Your task to perform on an android device: open the mobile data screen to see how much data has been used Image 0: 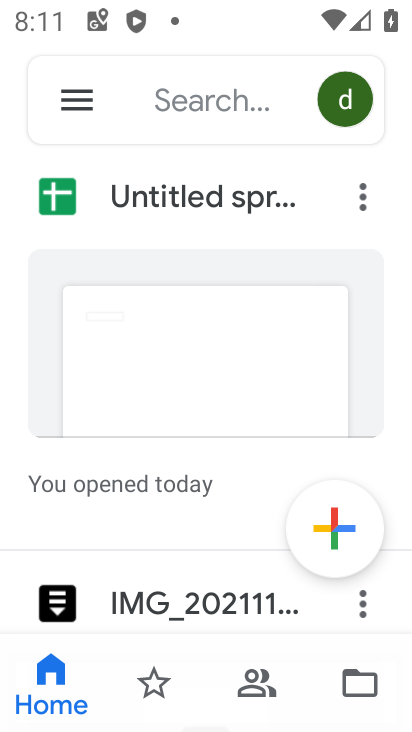
Step 0: press home button
Your task to perform on an android device: open the mobile data screen to see how much data has been used Image 1: 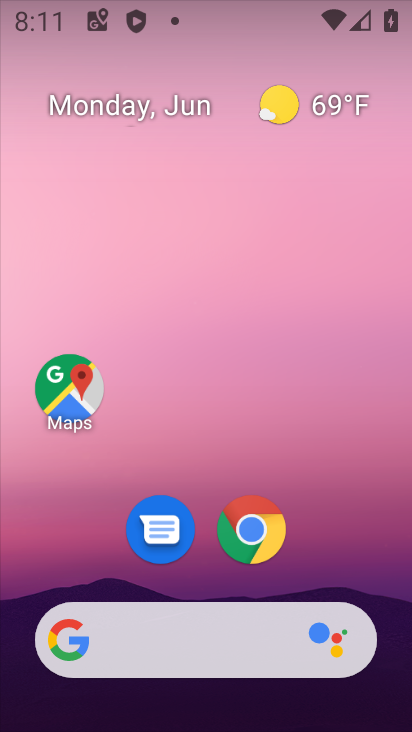
Step 1: drag from (329, 396) to (335, 60)
Your task to perform on an android device: open the mobile data screen to see how much data has been used Image 2: 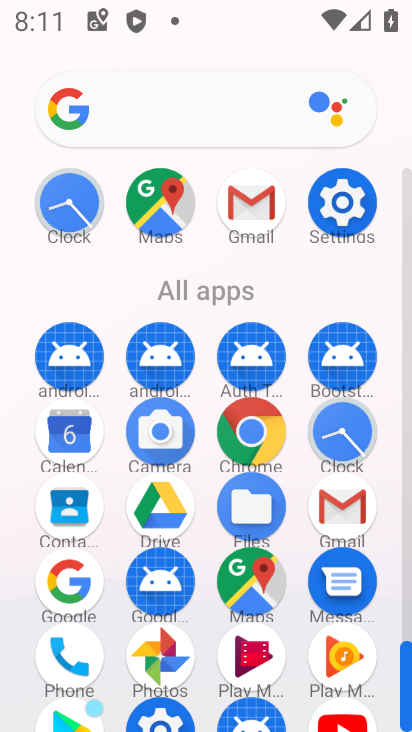
Step 2: click (336, 191)
Your task to perform on an android device: open the mobile data screen to see how much data has been used Image 3: 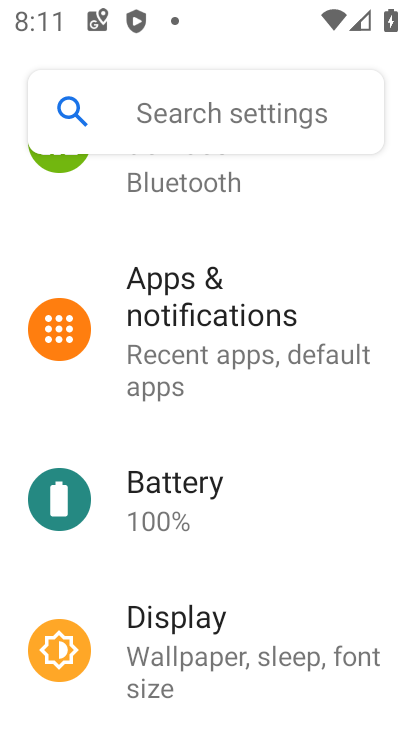
Step 3: drag from (330, 211) to (346, 368)
Your task to perform on an android device: open the mobile data screen to see how much data has been used Image 4: 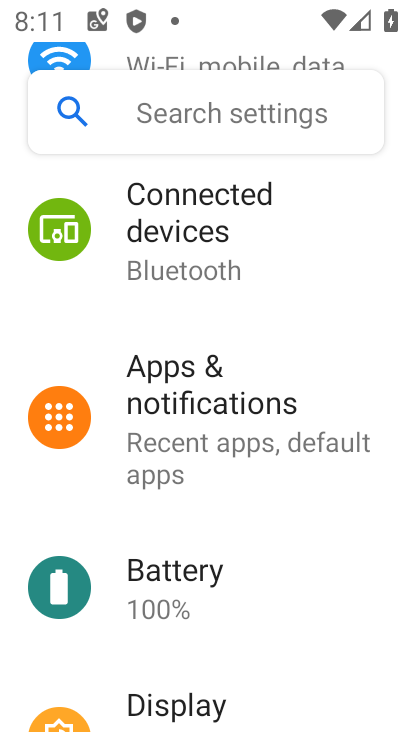
Step 4: drag from (344, 330) to (367, 598)
Your task to perform on an android device: open the mobile data screen to see how much data has been used Image 5: 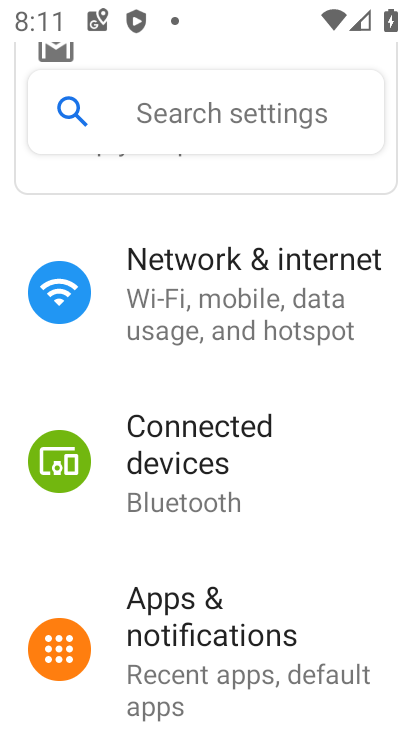
Step 5: click (221, 321)
Your task to perform on an android device: open the mobile data screen to see how much data has been used Image 6: 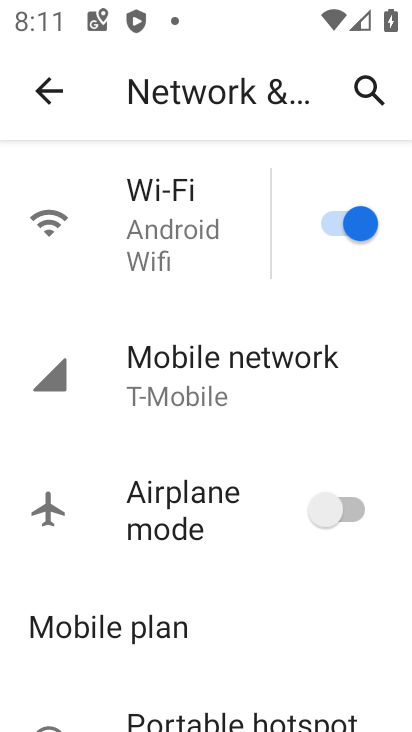
Step 6: click (231, 370)
Your task to perform on an android device: open the mobile data screen to see how much data has been used Image 7: 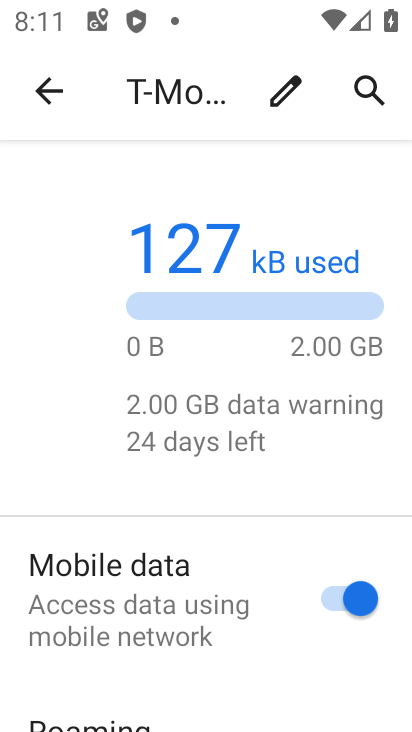
Step 7: task complete